Your task to perform on an android device: Open the map Image 0: 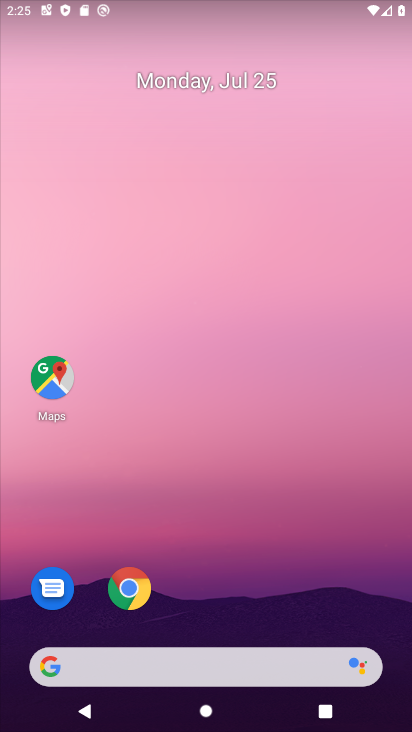
Step 0: click (56, 379)
Your task to perform on an android device: Open the map Image 1: 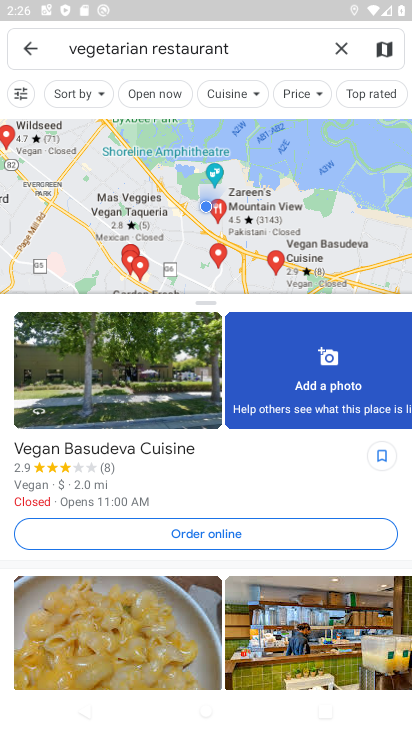
Step 1: task complete